Your task to perform on an android device: Search for Italian restaurants on Maps Image 0: 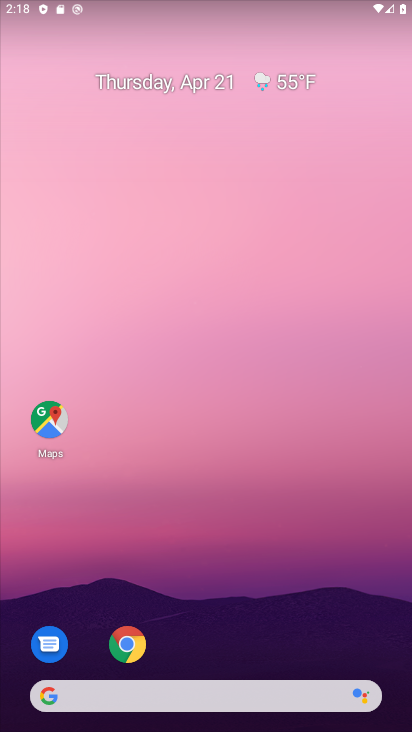
Step 0: drag from (137, 671) to (307, 106)
Your task to perform on an android device: Search for Italian restaurants on Maps Image 1: 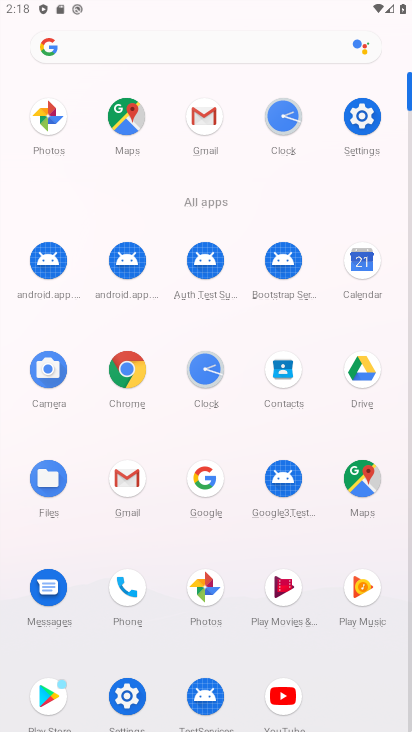
Step 1: click (378, 479)
Your task to perform on an android device: Search for Italian restaurants on Maps Image 2: 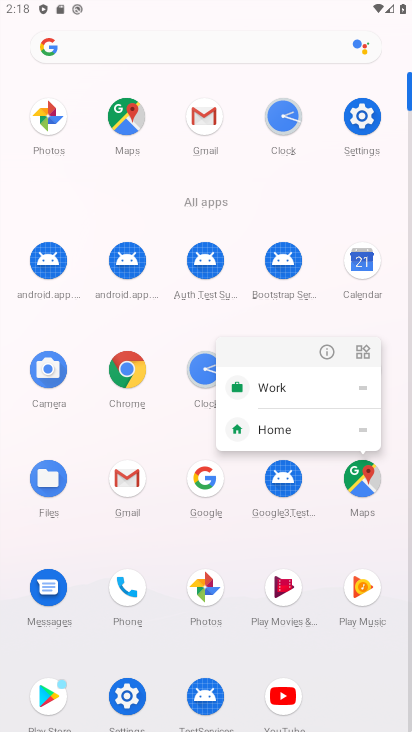
Step 2: click (371, 484)
Your task to perform on an android device: Search for Italian restaurants on Maps Image 3: 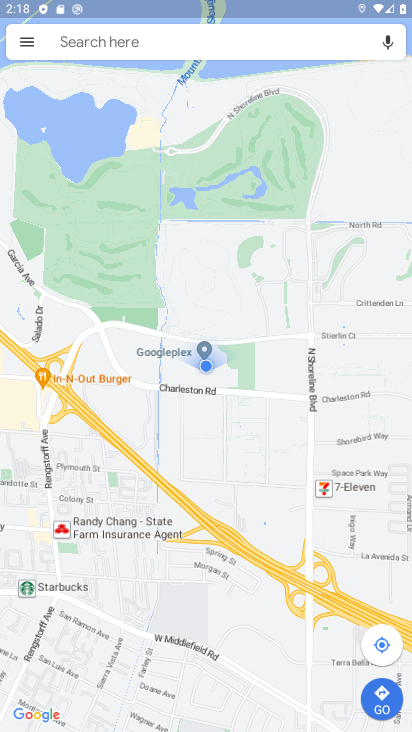
Step 3: click (169, 53)
Your task to perform on an android device: Search for Italian restaurants on Maps Image 4: 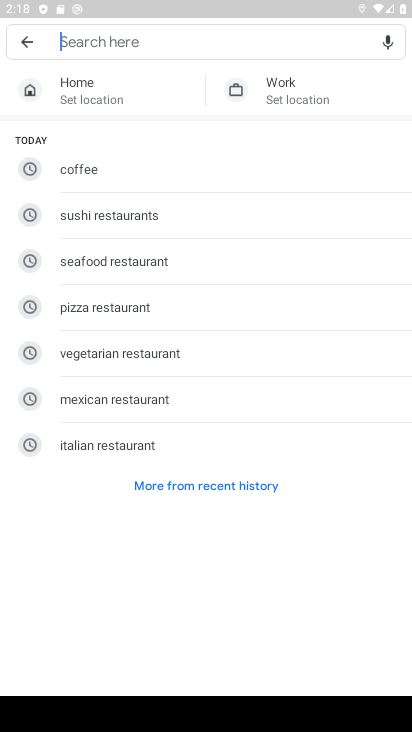
Step 4: type "Italian restaurants "
Your task to perform on an android device: Search for Italian restaurants on Maps Image 5: 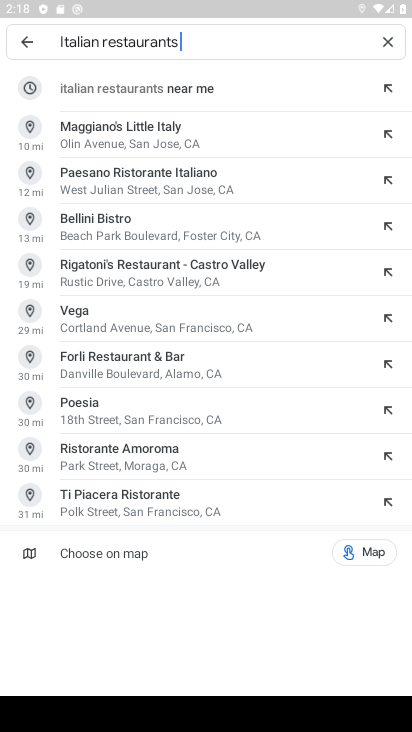
Step 5: click (220, 100)
Your task to perform on an android device: Search for Italian restaurants on Maps Image 6: 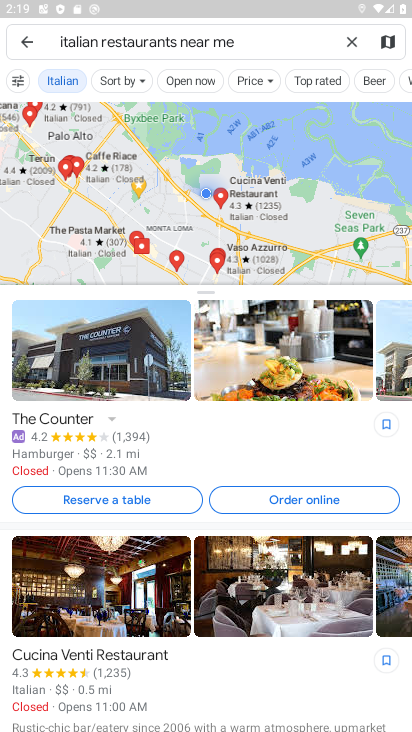
Step 6: task complete